Your task to perform on an android device: set the stopwatch Image 0: 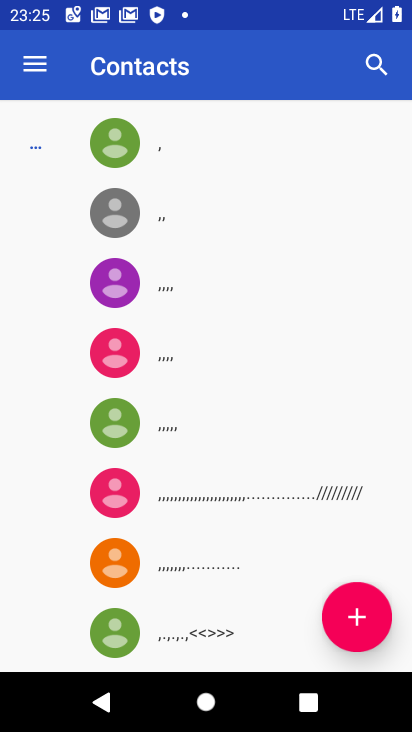
Step 0: press home button
Your task to perform on an android device: set the stopwatch Image 1: 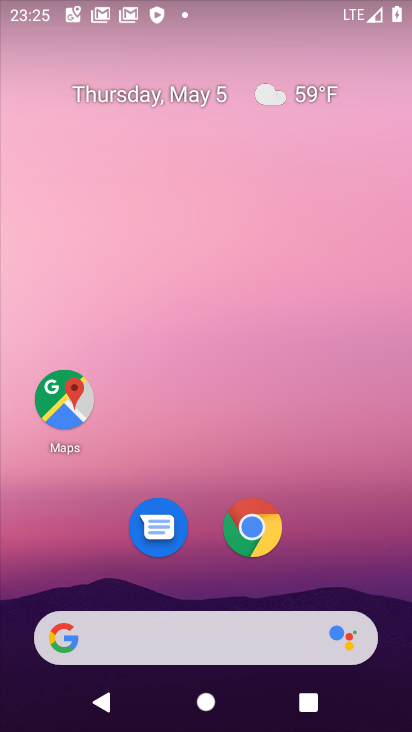
Step 1: drag from (280, 580) to (338, 70)
Your task to perform on an android device: set the stopwatch Image 2: 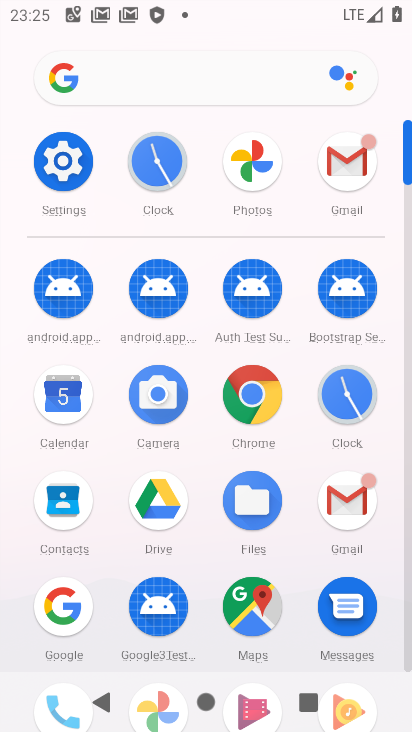
Step 2: click (359, 390)
Your task to perform on an android device: set the stopwatch Image 3: 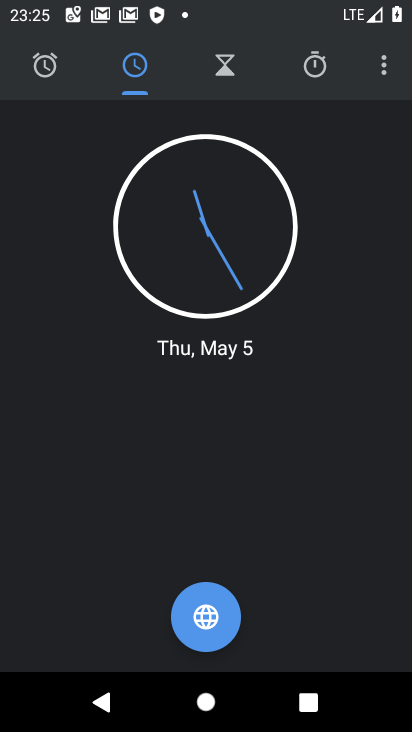
Step 3: click (323, 82)
Your task to perform on an android device: set the stopwatch Image 4: 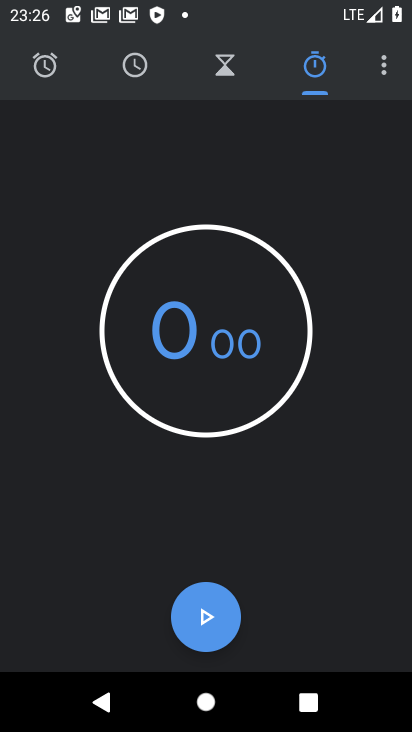
Step 4: click (208, 611)
Your task to perform on an android device: set the stopwatch Image 5: 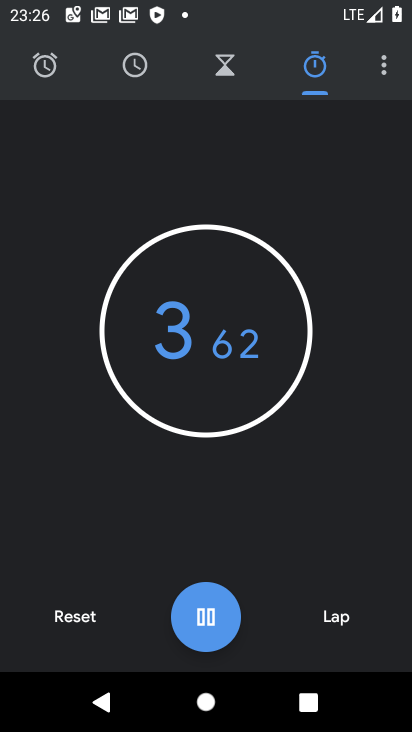
Step 5: task complete